Your task to perform on an android device: clear history in the chrome app Image 0: 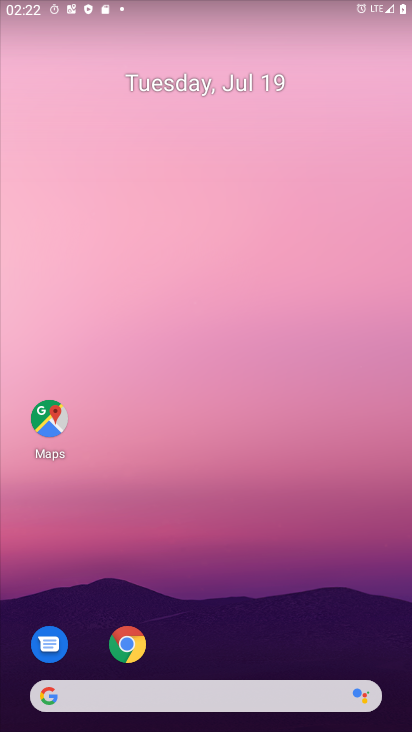
Step 0: click (130, 642)
Your task to perform on an android device: clear history in the chrome app Image 1: 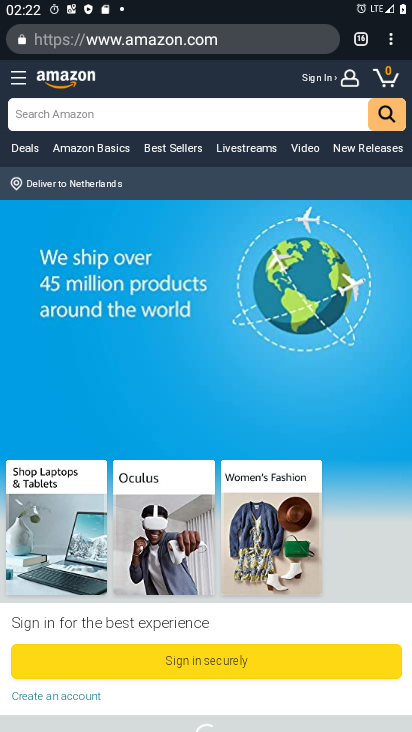
Step 1: click (394, 43)
Your task to perform on an android device: clear history in the chrome app Image 2: 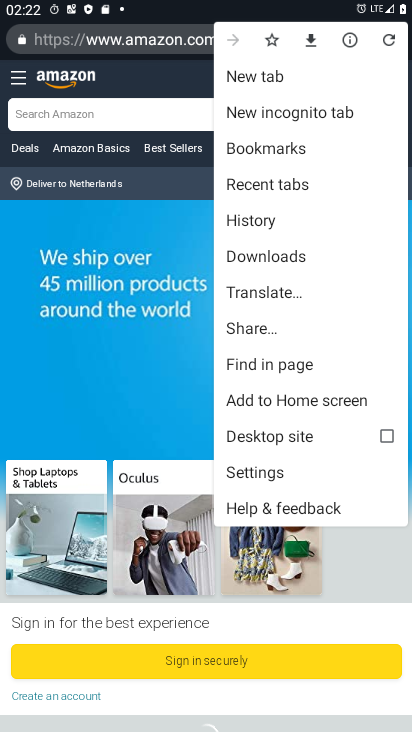
Step 2: click (251, 223)
Your task to perform on an android device: clear history in the chrome app Image 3: 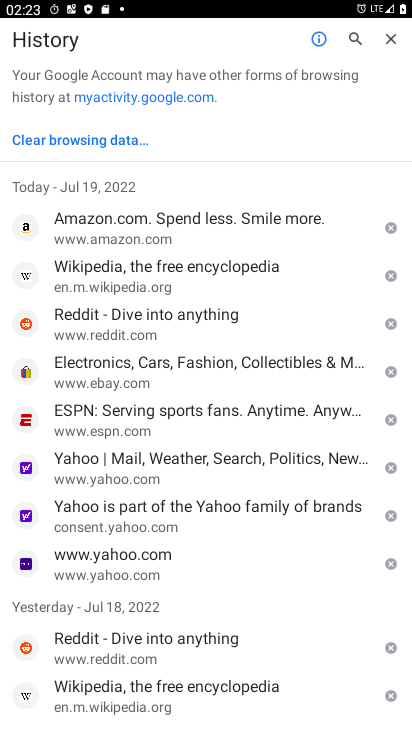
Step 3: click (111, 136)
Your task to perform on an android device: clear history in the chrome app Image 4: 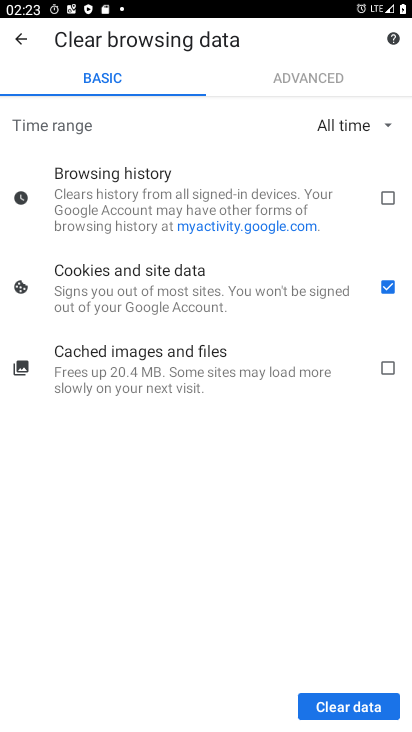
Step 4: click (392, 198)
Your task to perform on an android device: clear history in the chrome app Image 5: 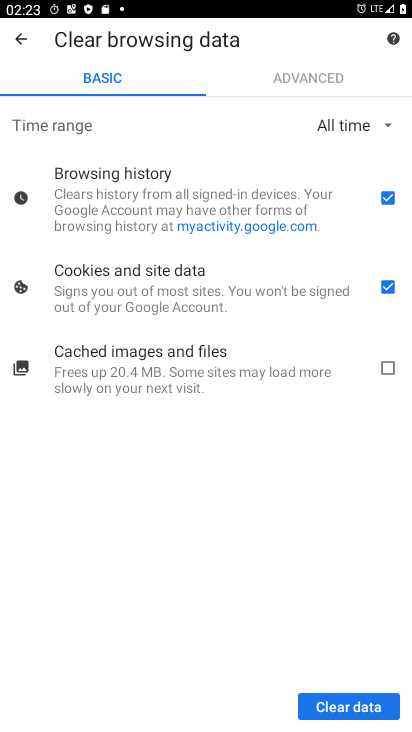
Step 5: click (390, 291)
Your task to perform on an android device: clear history in the chrome app Image 6: 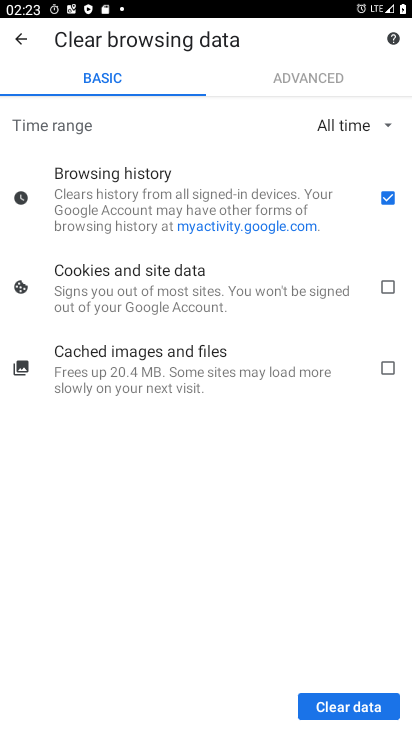
Step 6: click (341, 708)
Your task to perform on an android device: clear history in the chrome app Image 7: 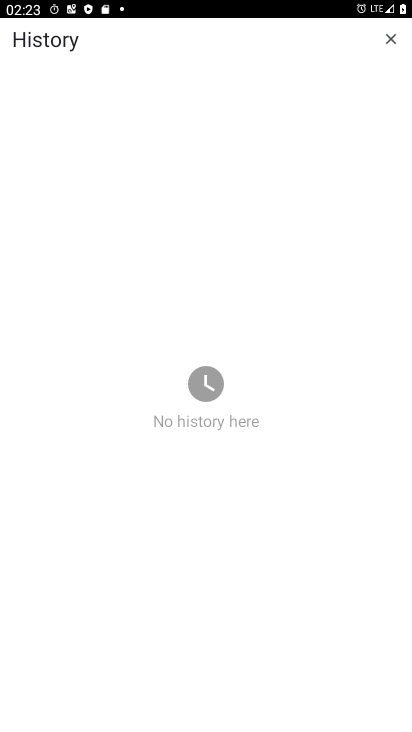
Step 7: task complete